Your task to perform on an android device: Open settings Image 0: 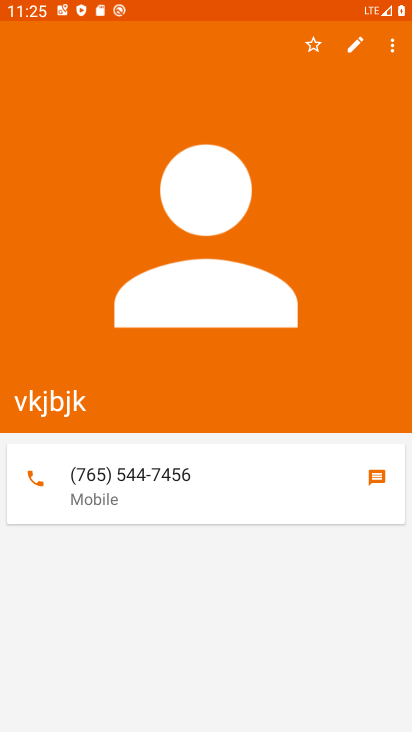
Step 0: press home button
Your task to perform on an android device: Open settings Image 1: 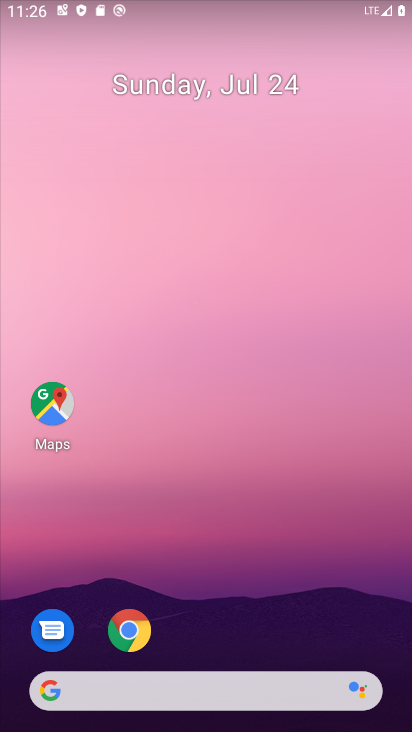
Step 1: click (189, 155)
Your task to perform on an android device: Open settings Image 2: 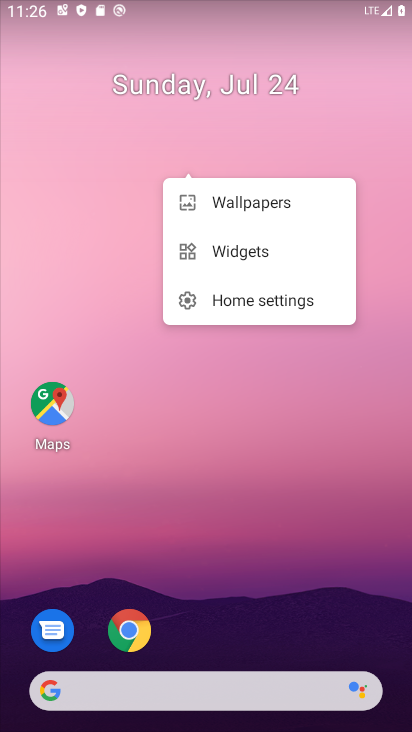
Step 2: click (191, 644)
Your task to perform on an android device: Open settings Image 3: 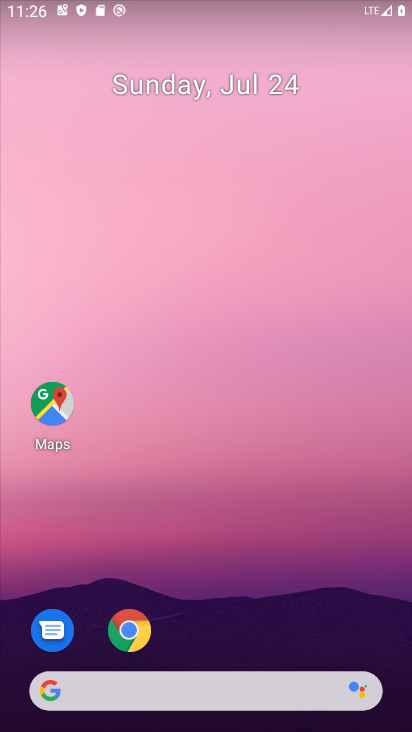
Step 3: drag from (197, 640) to (204, 119)
Your task to perform on an android device: Open settings Image 4: 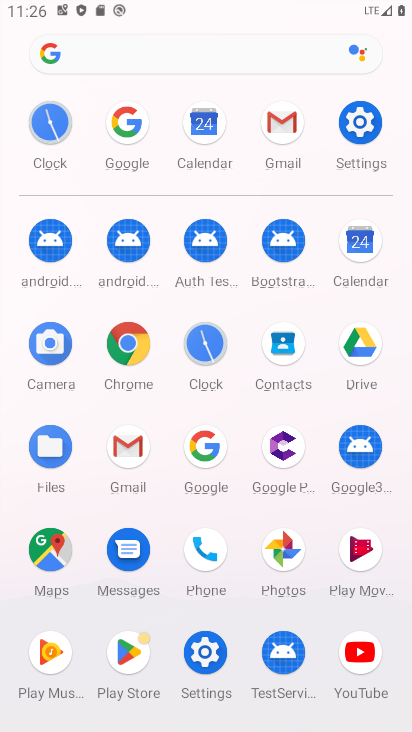
Step 4: click (360, 129)
Your task to perform on an android device: Open settings Image 5: 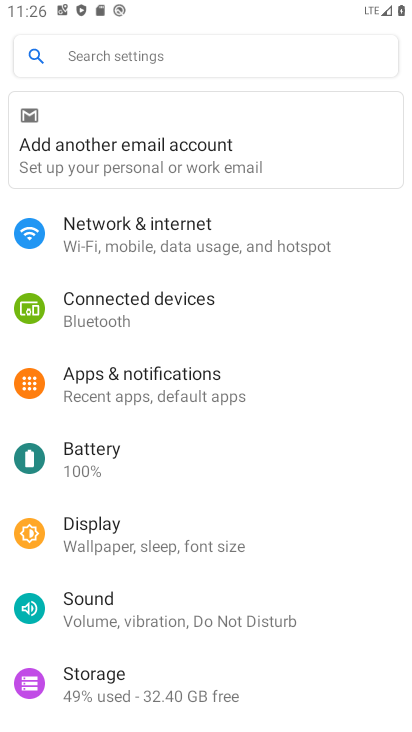
Step 5: task complete